Your task to perform on an android device: When is my next appointment? Image 0: 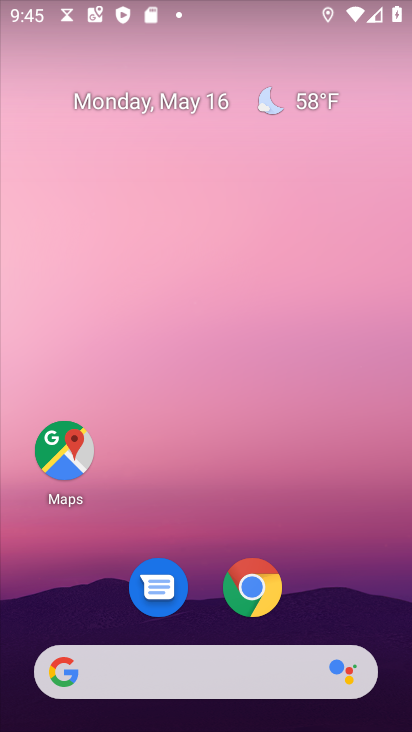
Step 0: drag from (373, 606) to (217, 21)
Your task to perform on an android device: When is my next appointment? Image 1: 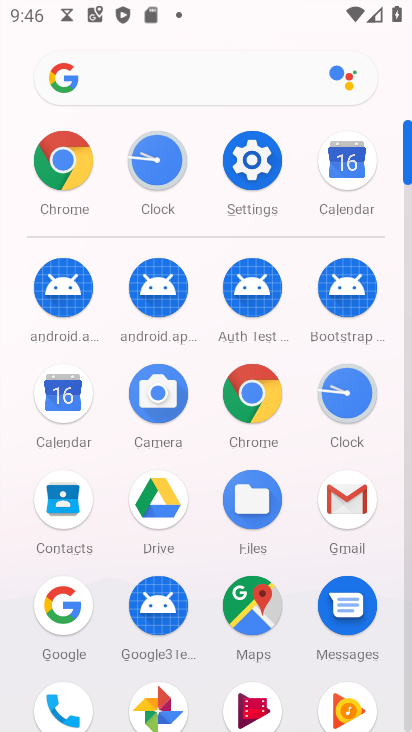
Step 1: click (350, 165)
Your task to perform on an android device: When is my next appointment? Image 2: 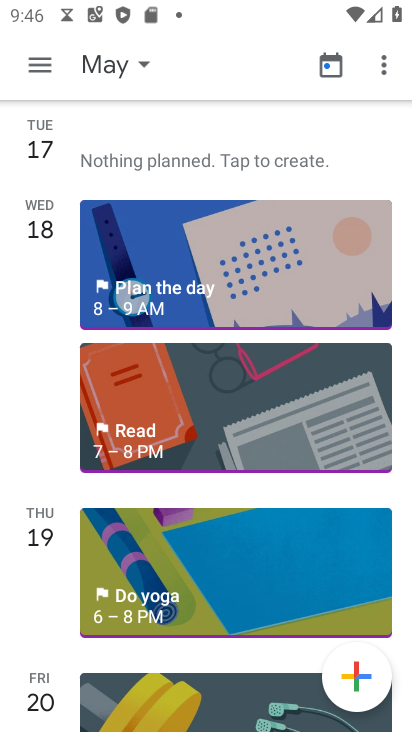
Step 2: click (44, 73)
Your task to perform on an android device: When is my next appointment? Image 3: 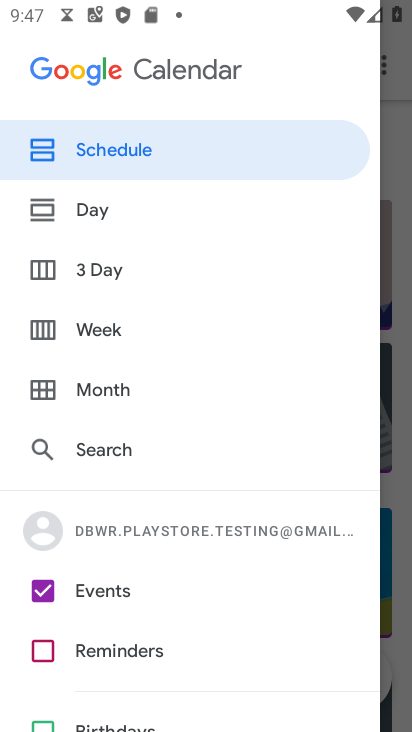
Step 3: click (221, 164)
Your task to perform on an android device: When is my next appointment? Image 4: 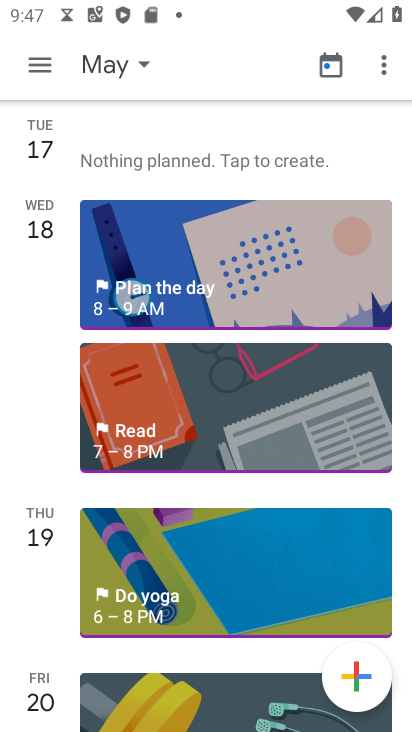
Step 4: task complete